Your task to perform on an android device: Open Google Chrome Image 0: 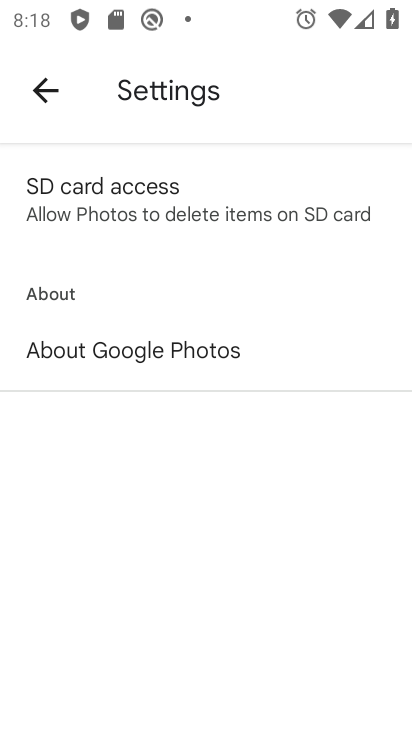
Step 0: press home button
Your task to perform on an android device: Open Google Chrome Image 1: 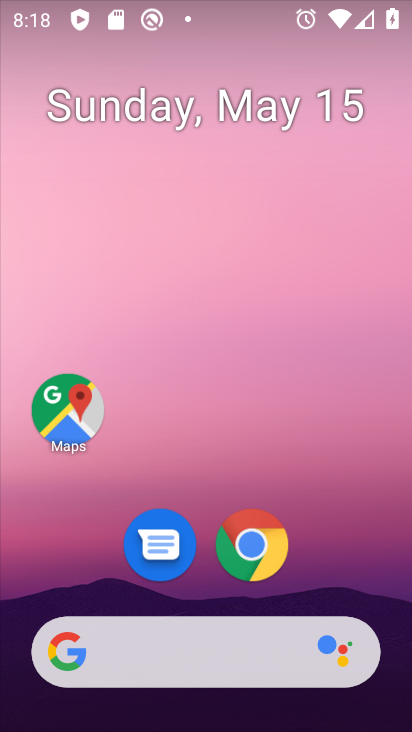
Step 1: drag from (355, 497) to (356, 68)
Your task to perform on an android device: Open Google Chrome Image 2: 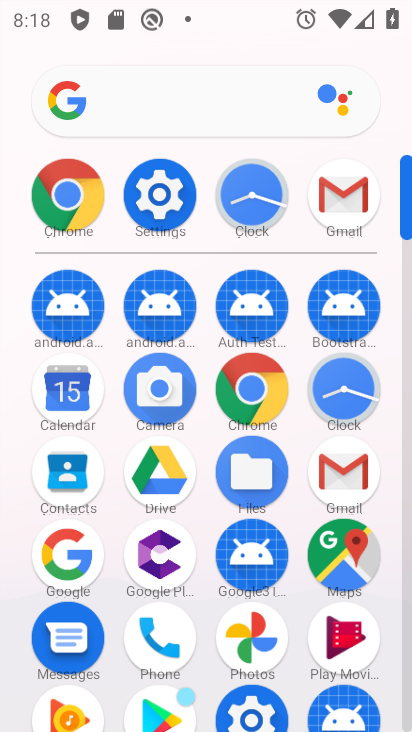
Step 2: click (246, 386)
Your task to perform on an android device: Open Google Chrome Image 3: 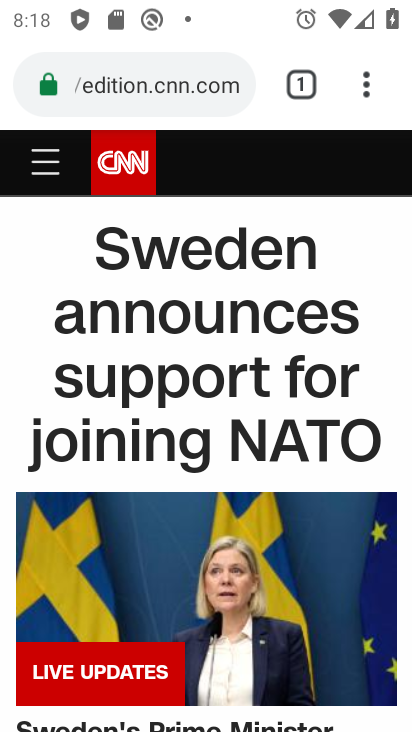
Step 3: task complete